Your task to perform on an android device: see tabs open on other devices in the chrome app Image 0: 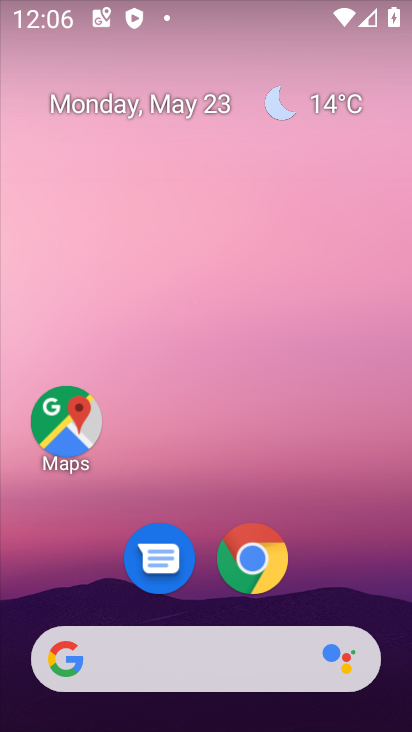
Step 0: click (255, 568)
Your task to perform on an android device: see tabs open on other devices in the chrome app Image 1: 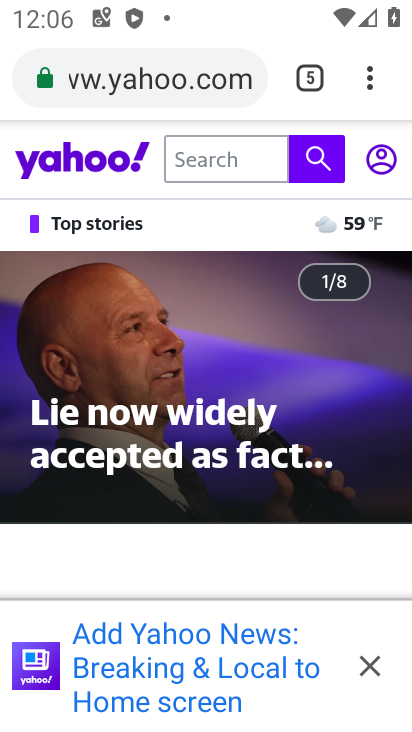
Step 1: click (367, 78)
Your task to perform on an android device: see tabs open on other devices in the chrome app Image 2: 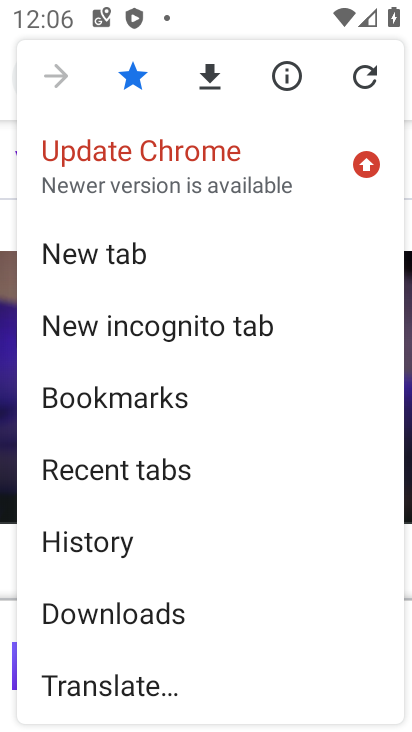
Step 2: click (98, 477)
Your task to perform on an android device: see tabs open on other devices in the chrome app Image 3: 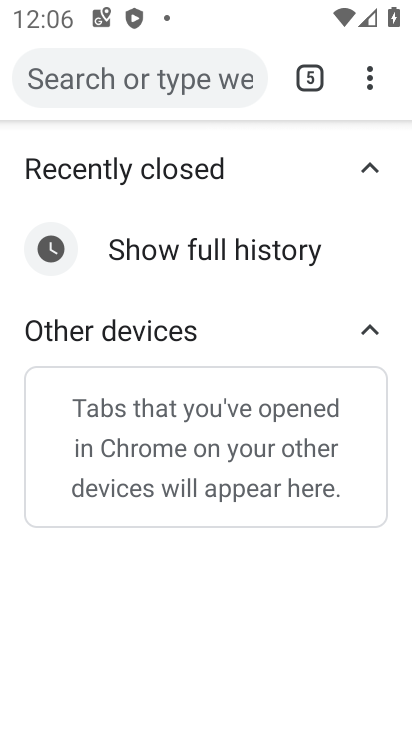
Step 3: task complete